Your task to perform on an android device: Go to display settings Image 0: 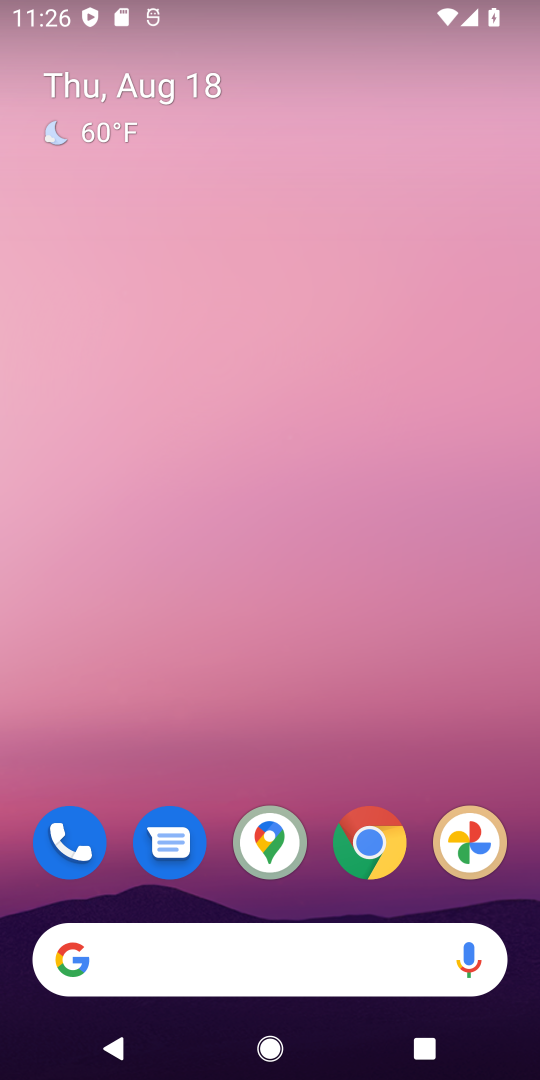
Step 0: drag from (319, 902) to (319, 310)
Your task to perform on an android device: Go to display settings Image 1: 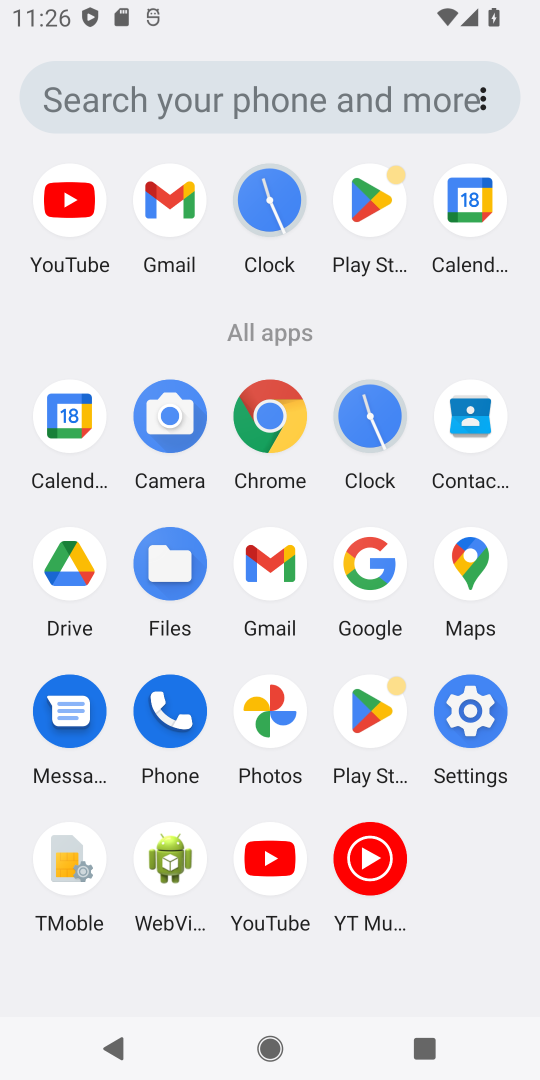
Step 1: click (484, 694)
Your task to perform on an android device: Go to display settings Image 2: 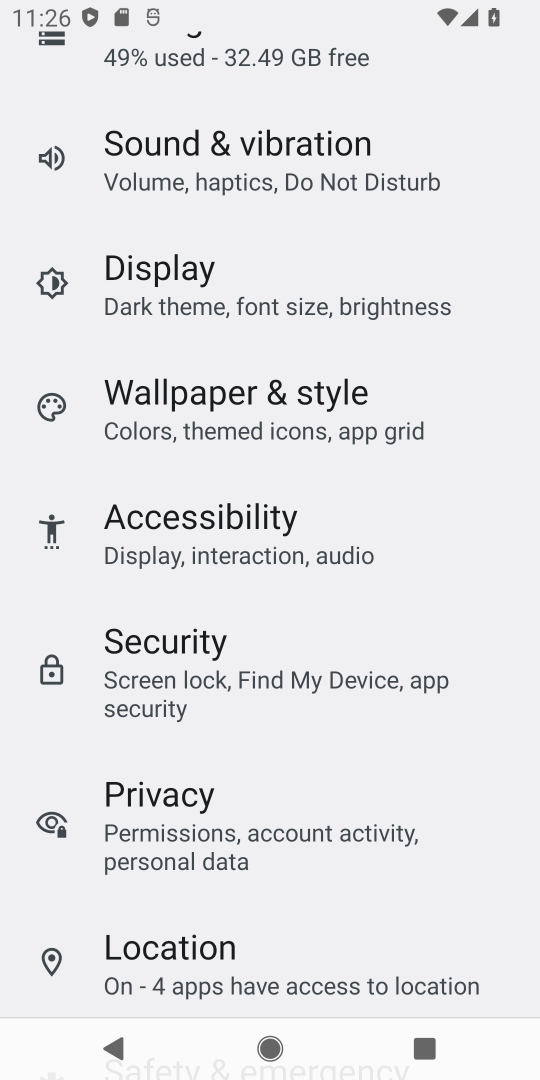
Step 2: click (150, 285)
Your task to perform on an android device: Go to display settings Image 3: 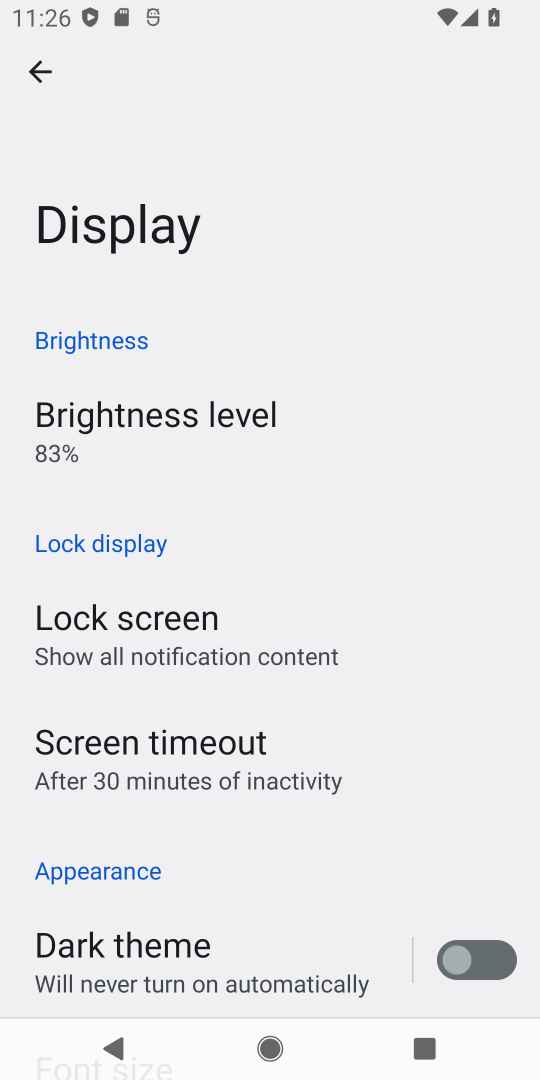
Step 3: task complete